Your task to perform on an android device: Show the shopping cart on target. Add "dell xps" to the cart on target, then select checkout. Image 0: 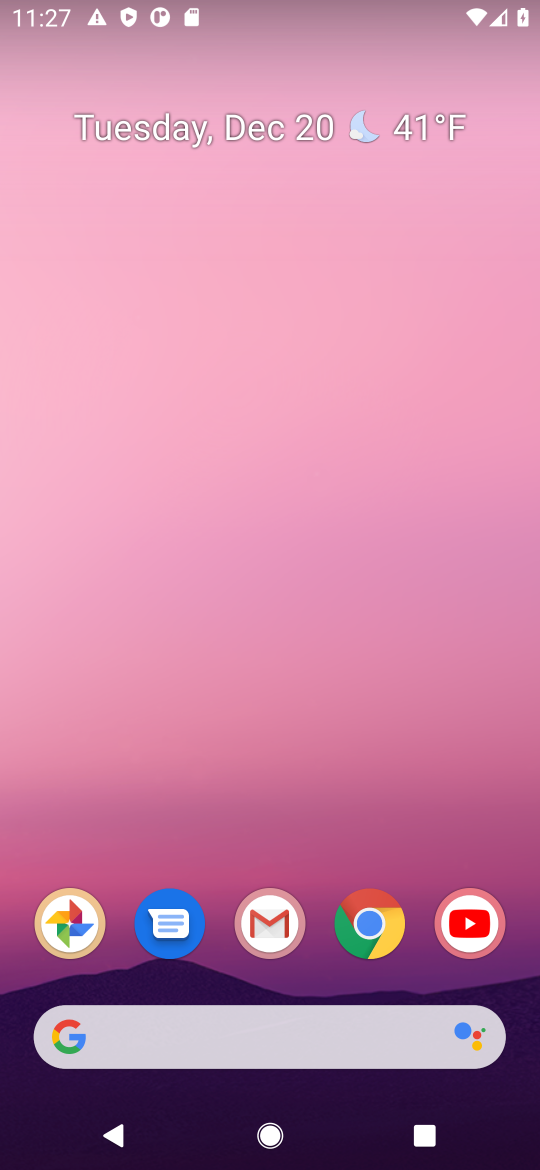
Step 0: click (344, 940)
Your task to perform on an android device: Show the shopping cart on target. Add "dell xps" to the cart on target, then select checkout. Image 1: 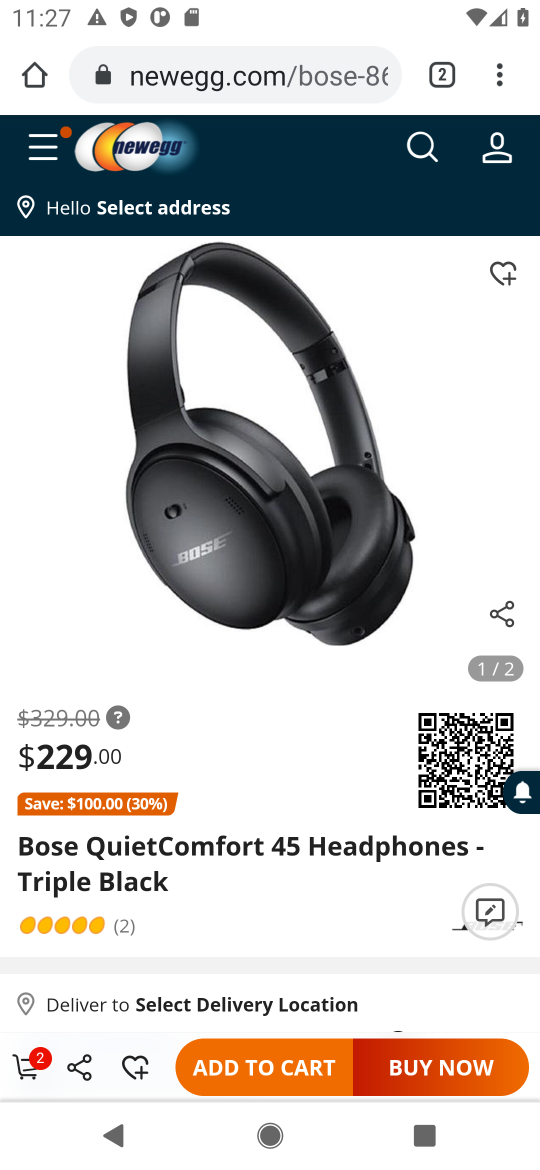
Step 1: click (259, 75)
Your task to perform on an android device: Show the shopping cart on target. Add "dell xps" to the cart on target, then select checkout. Image 2: 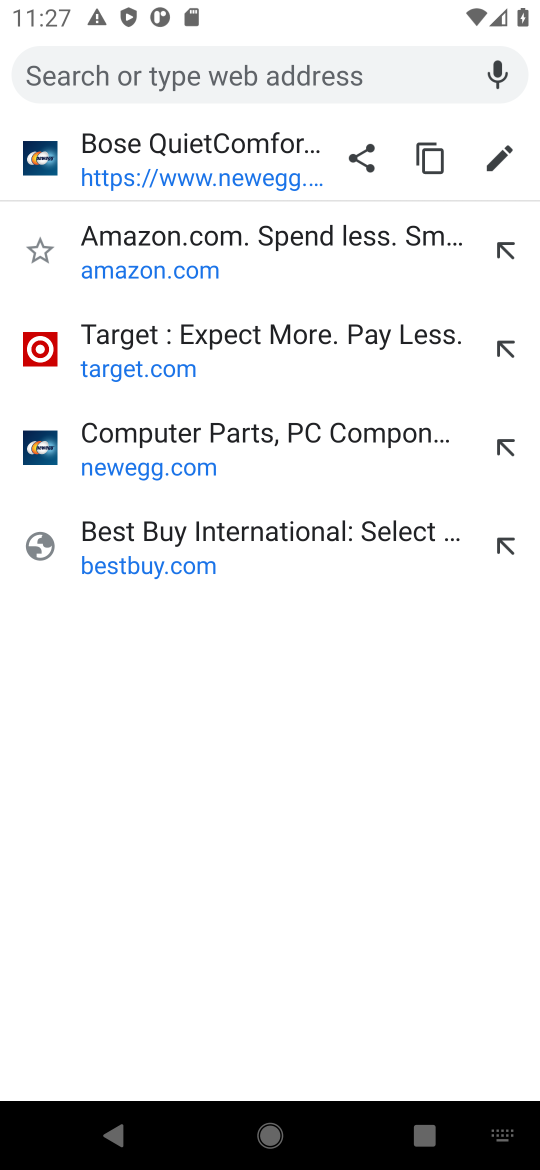
Step 2: type "target"
Your task to perform on an android device: Show the shopping cart on target. Add "dell xps" to the cart on target, then select checkout. Image 3: 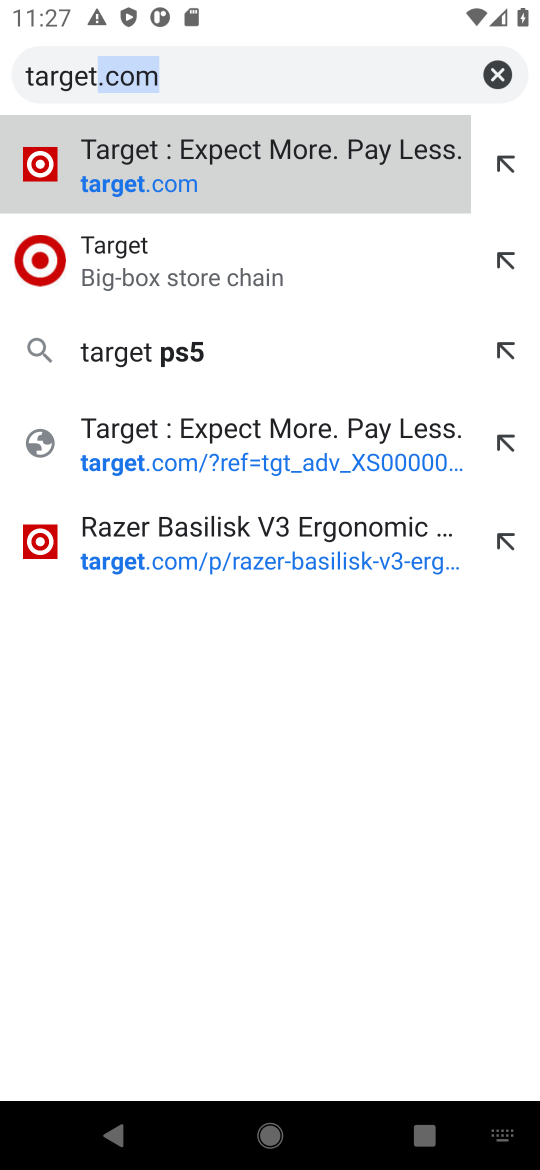
Step 3: click (182, 151)
Your task to perform on an android device: Show the shopping cart on target. Add "dell xps" to the cart on target, then select checkout. Image 4: 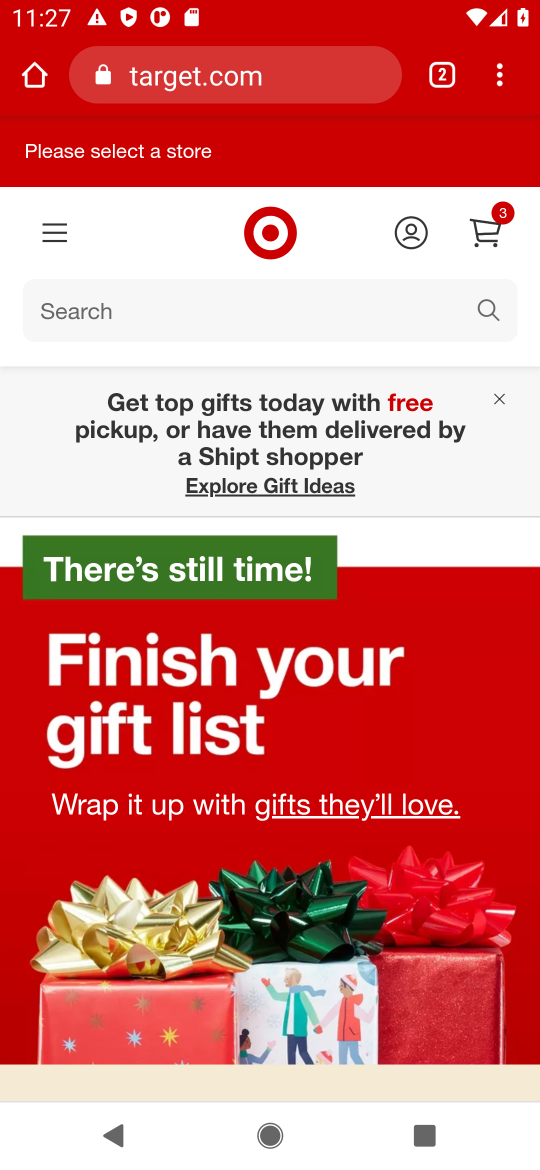
Step 4: click (154, 326)
Your task to perform on an android device: Show the shopping cart on target. Add "dell xps" to the cart on target, then select checkout. Image 5: 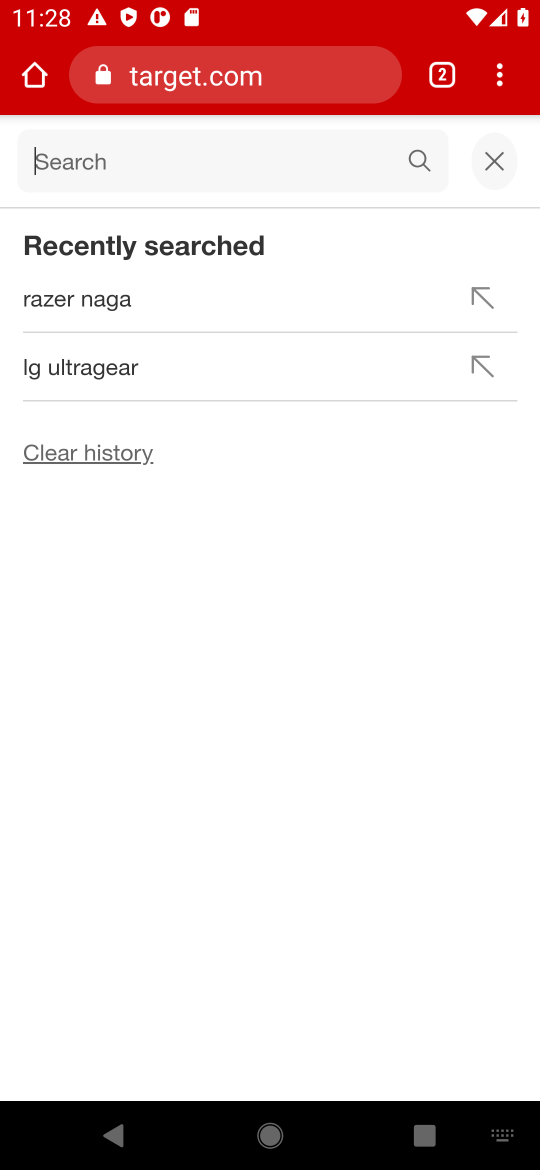
Step 5: type "dell xps"
Your task to perform on an android device: Show the shopping cart on target. Add "dell xps" to the cart on target, then select checkout. Image 6: 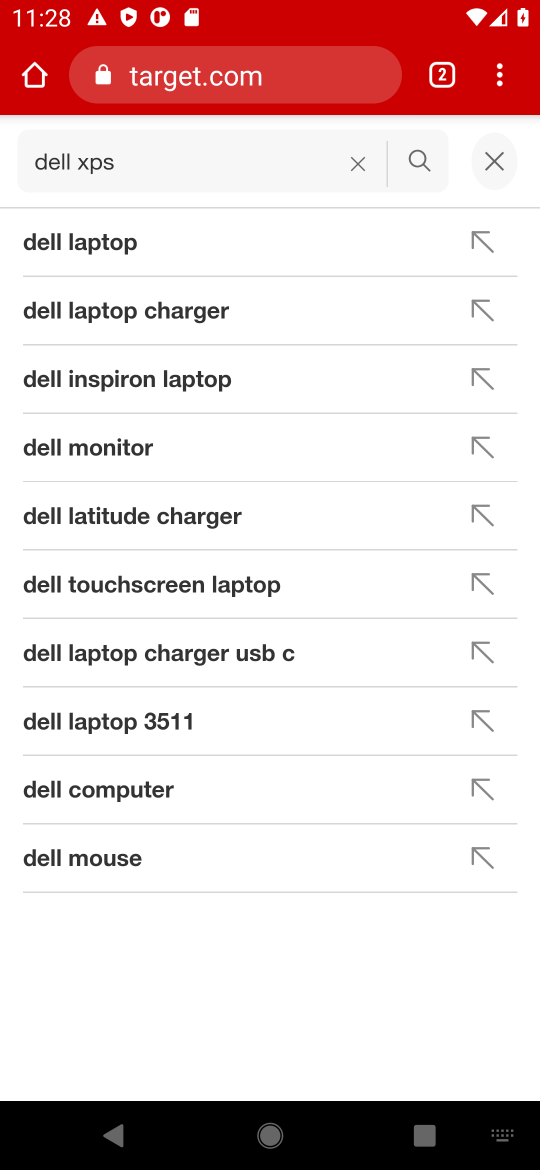
Step 6: click (421, 156)
Your task to perform on an android device: Show the shopping cart on target. Add "dell xps" to the cart on target, then select checkout. Image 7: 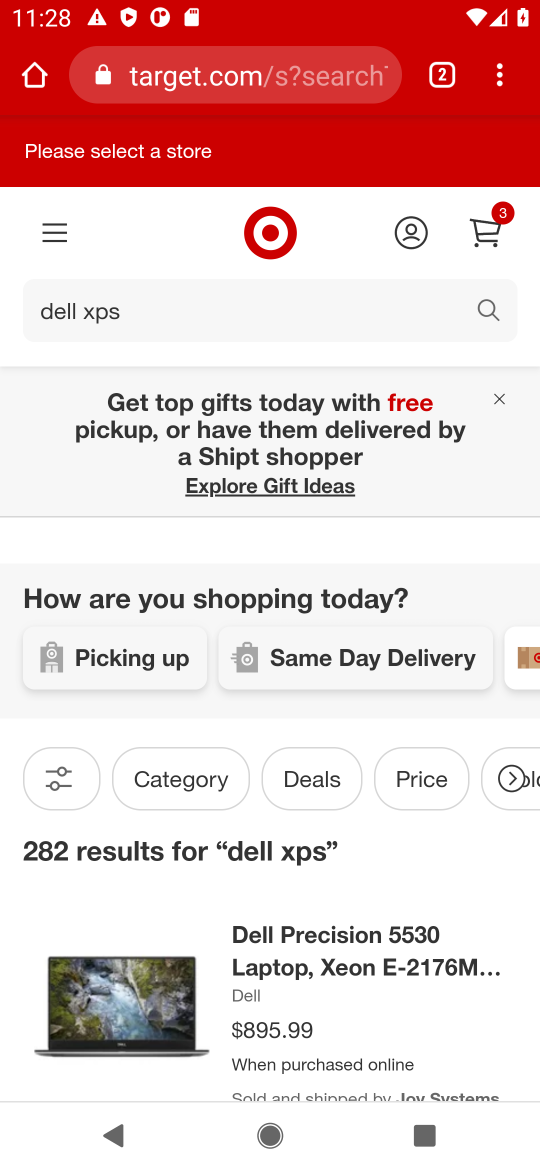
Step 7: click (308, 934)
Your task to perform on an android device: Show the shopping cart on target. Add "dell xps" to the cart on target, then select checkout. Image 8: 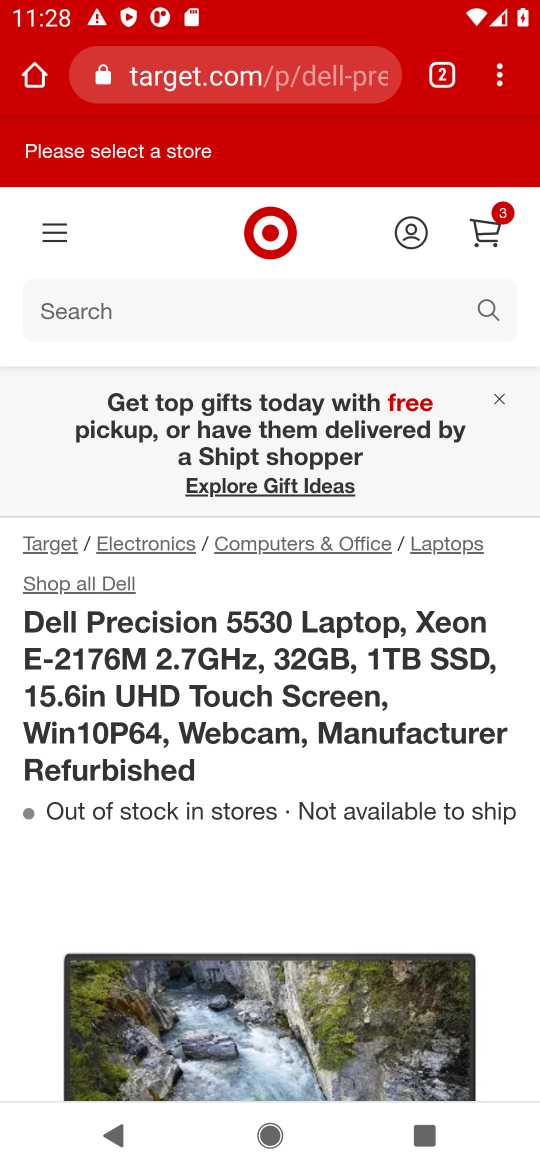
Step 8: drag from (253, 920) to (224, 476)
Your task to perform on an android device: Show the shopping cart on target. Add "dell xps" to the cart on target, then select checkout. Image 9: 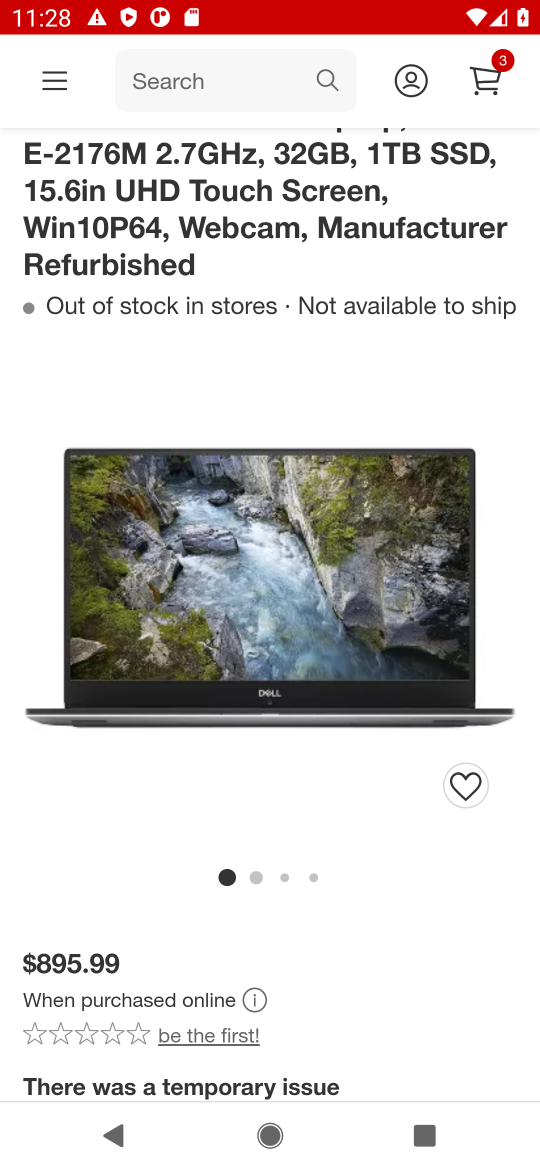
Step 9: drag from (263, 920) to (293, 376)
Your task to perform on an android device: Show the shopping cart on target. Add "dell xps" to the cart on target, then select checkout. Image 10: 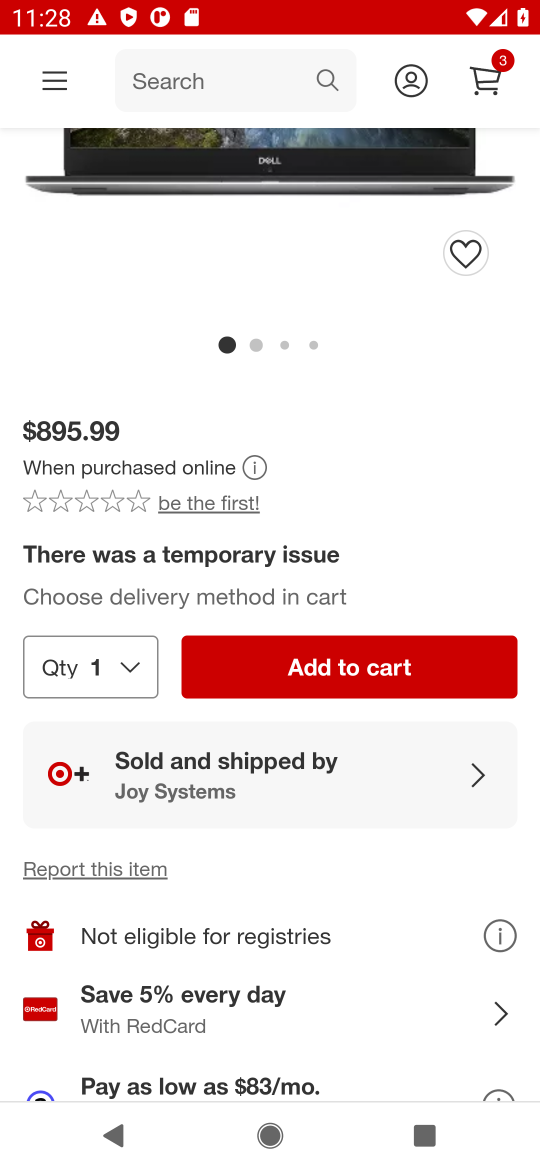
Step 10: click (311, 692)
Your task to perform on an android device: Show the shopping cart on target. Add "dell xps" to the cart on target, then select checkout. Image 11: 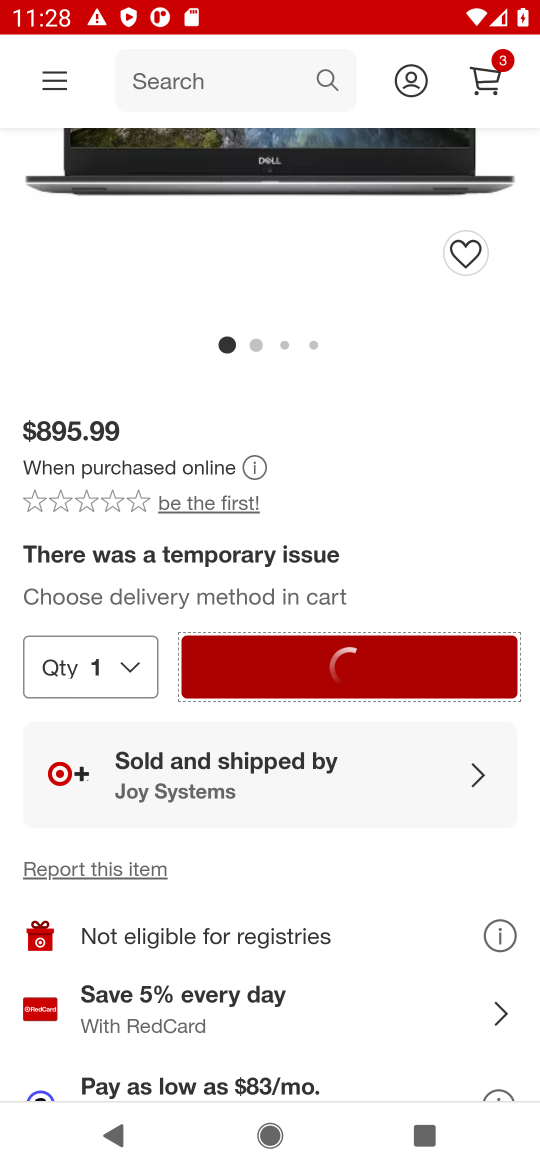
Step 11: task complete